Your task to perform on an android device: visit the assistant section in the google photos Image 0: 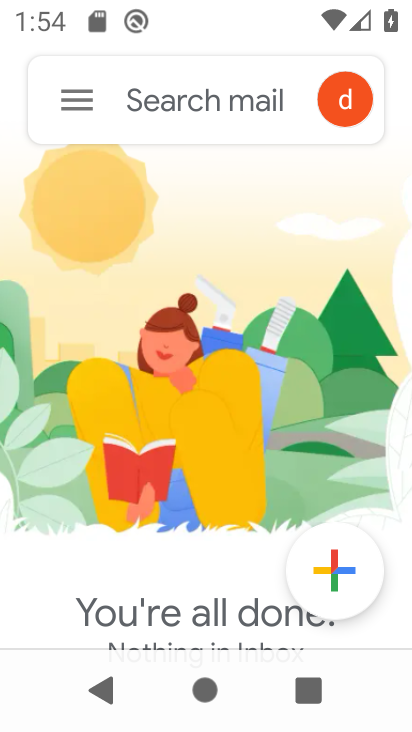
Step 0: press home button
Your task to perform on an android device: visit the assistant section in the google photos Image 1: 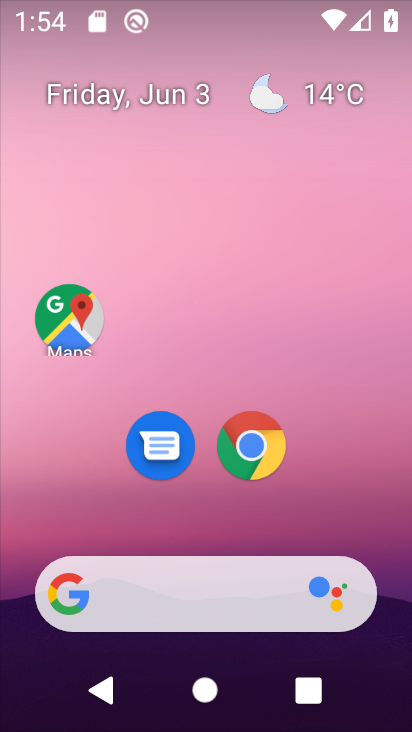
Step 1: drag from (124, 546) to (249, 115)
Your task to perform on an android device: visit the assistant section in the google photos Image 2: 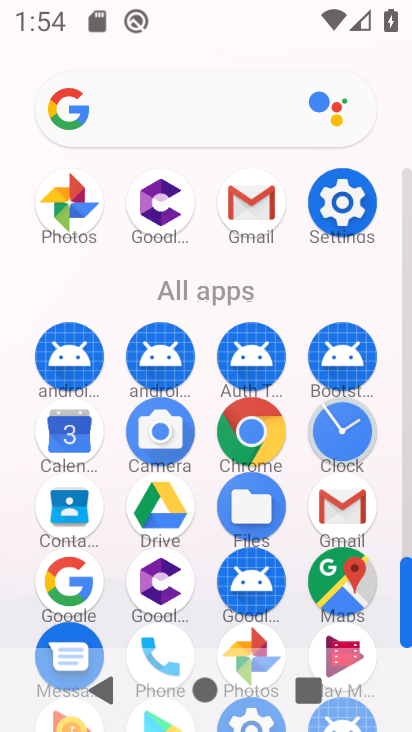
Step 2: click (257, 636)
Your task to perform on an android device: visit the assistant section in the google photos Image 3: 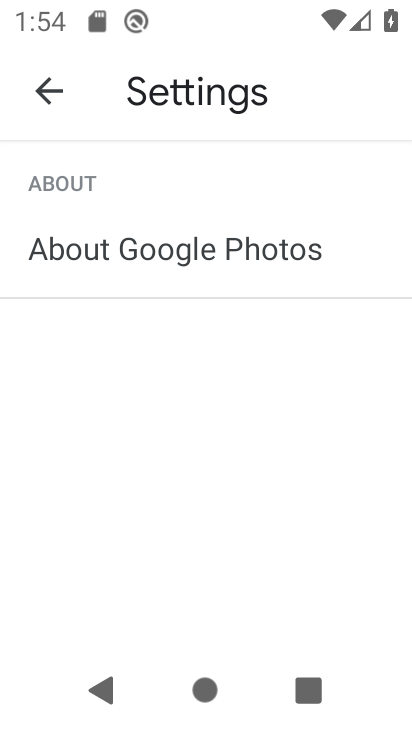
Step 3: click (65, 101)
Your task to perform on an android device: visit the assistant section in the google photos Image 4: 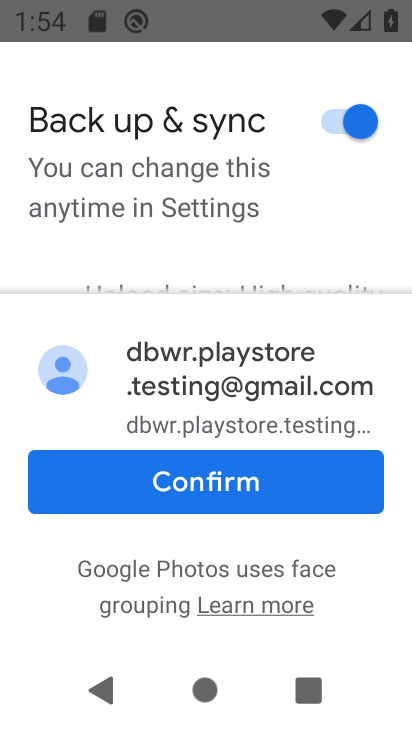
Step 4: click (273, 500)
Your task to perform on an android device: visit the assistant section in the google photos Image 5: 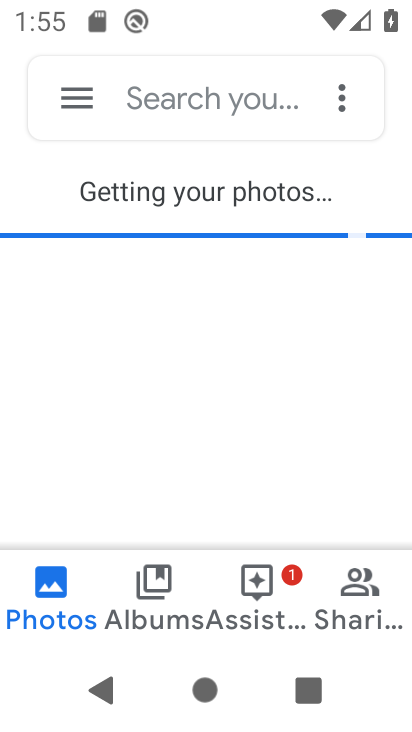
Step 5: click (263, 594)
Your task to perform on an android device: visit the assistant section in the google photos Image 6: 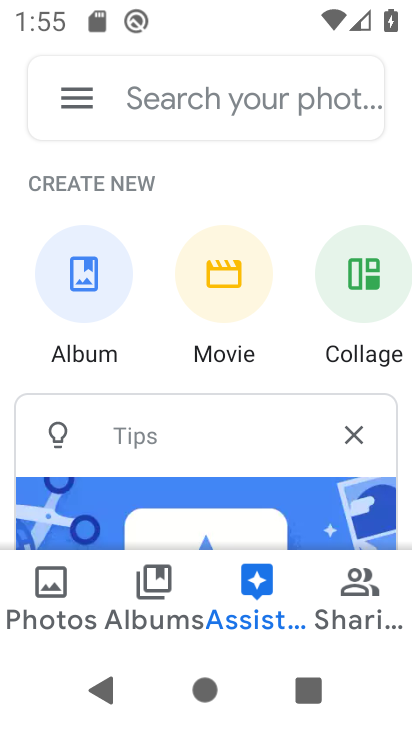
Step 6: task complete